Your task to perform on an android device: Go to Wikipedia Image 0: 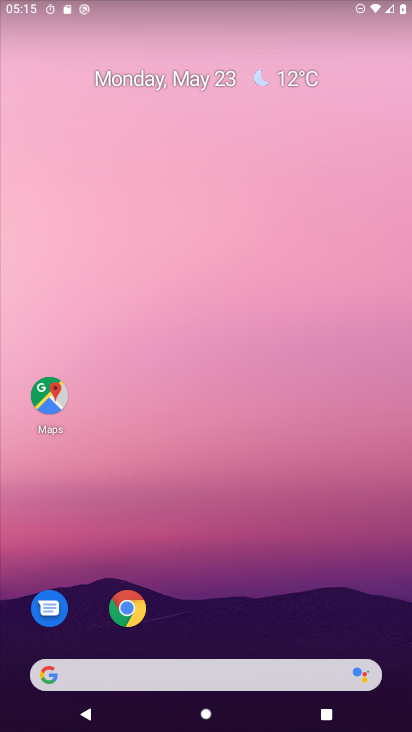
Step 0: click (140, 617)
Your task to perform on an android device: Go to Wikipedia Image 1: 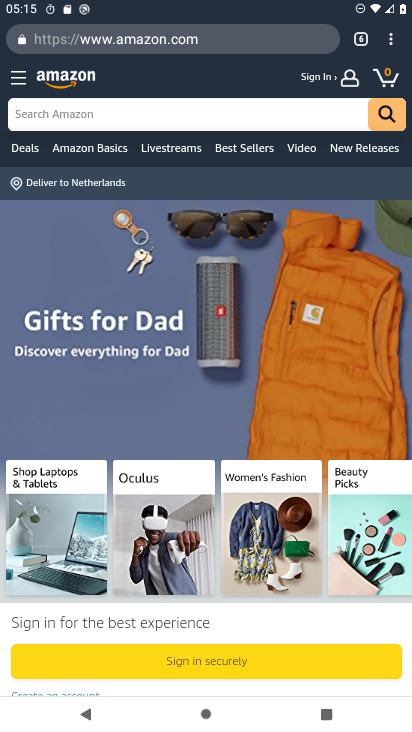
Step 1: click (358, 41)
Your task to perform on an android device: Go to Wikipedia Image 2: 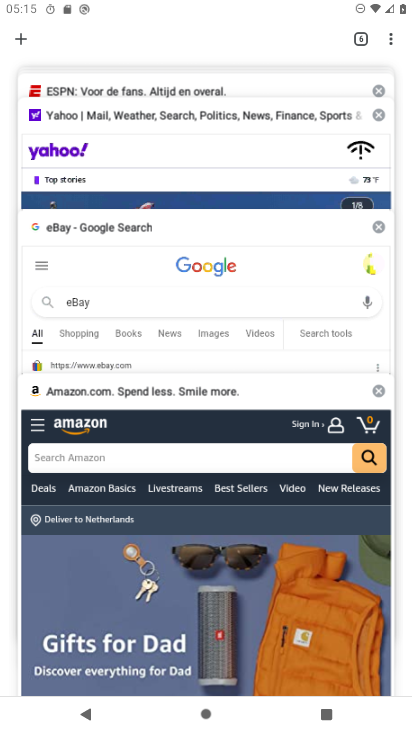
Step 2: click (24, 39)
Your task to perform on an android device: Go to Wikipedia Image 3: 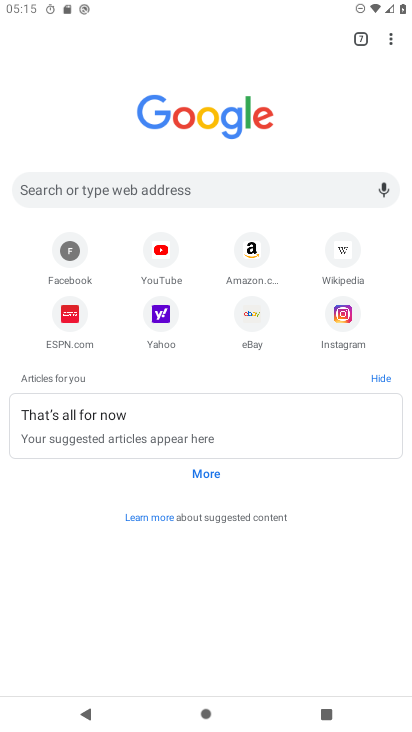
Step 3: click (340, 255)
Your task to perform on an android device: Go to Wikipedia Image 4: 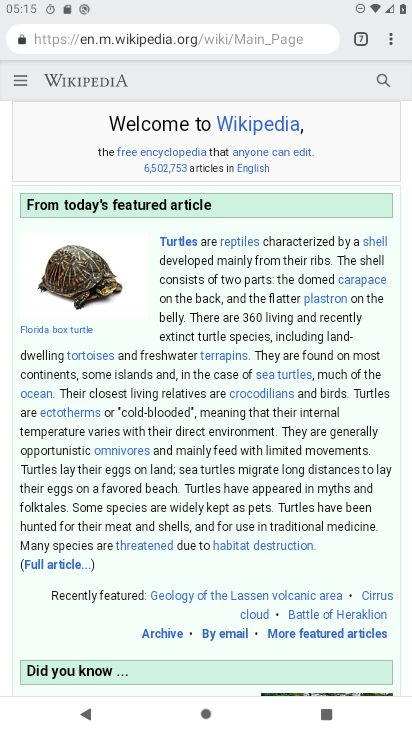
Step 4: task complete